Your task to perform on an android device: Add "jbl flip 4" to the cart on bestbuy.com Image 0: 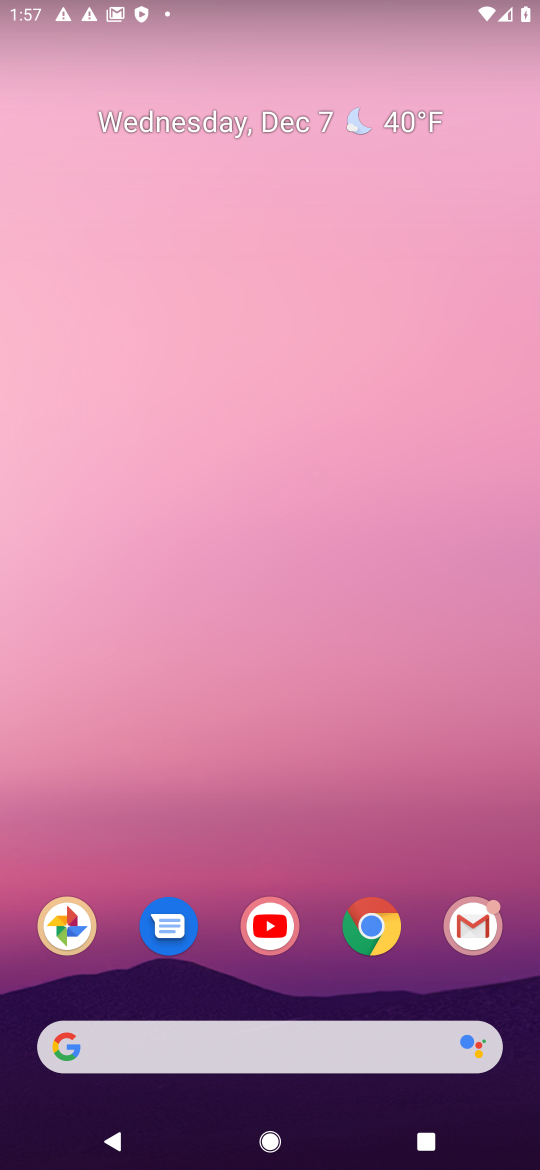
Step 0: drag from (280, 969) to (343, 419)
Your task to perform on an android device: Add "jbl flip 4" to the cart on bestbuy.com Image 1: 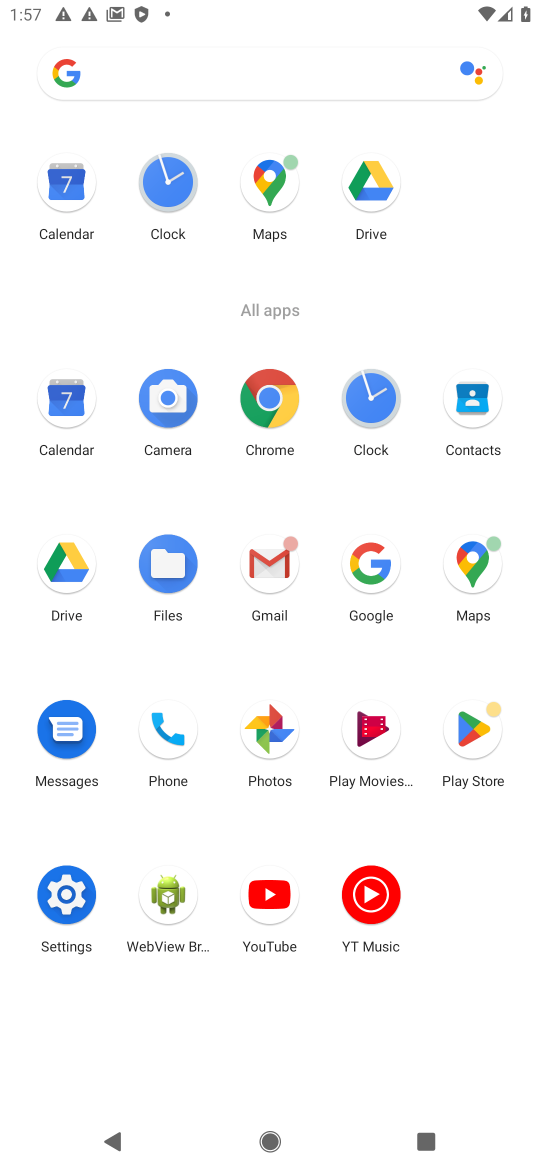
Step 1: click (366, 571)
Your task to perform on an android device: Add "jbl flip 4" to the cart on bestbuy.com Image 2: 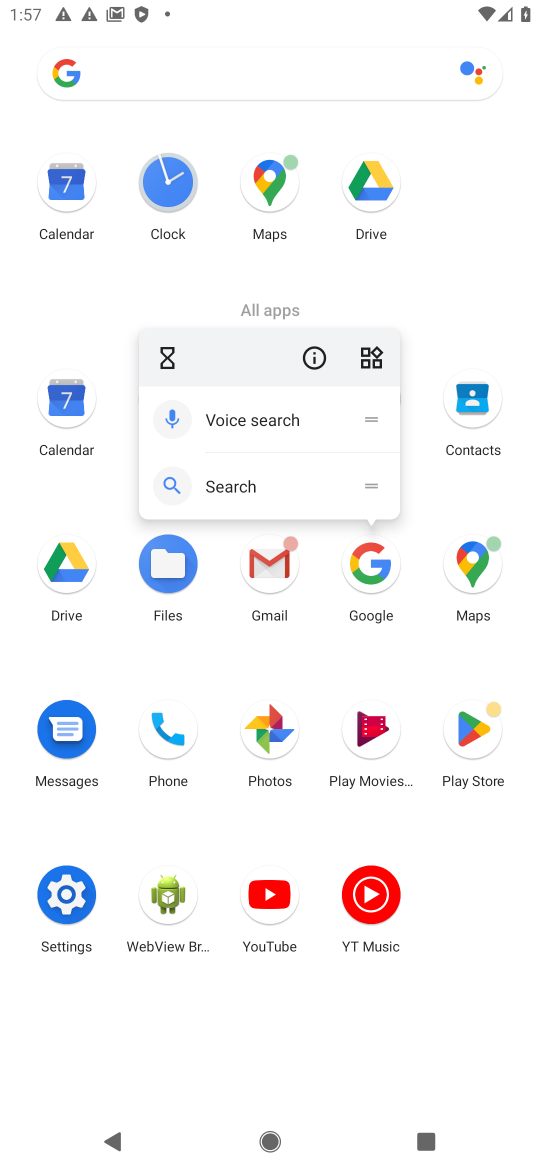
Step 2: click (369, 564)
Your task to perform on an android device: Add "jbl flip 4" to the cart on bestbuy.com Image 3: 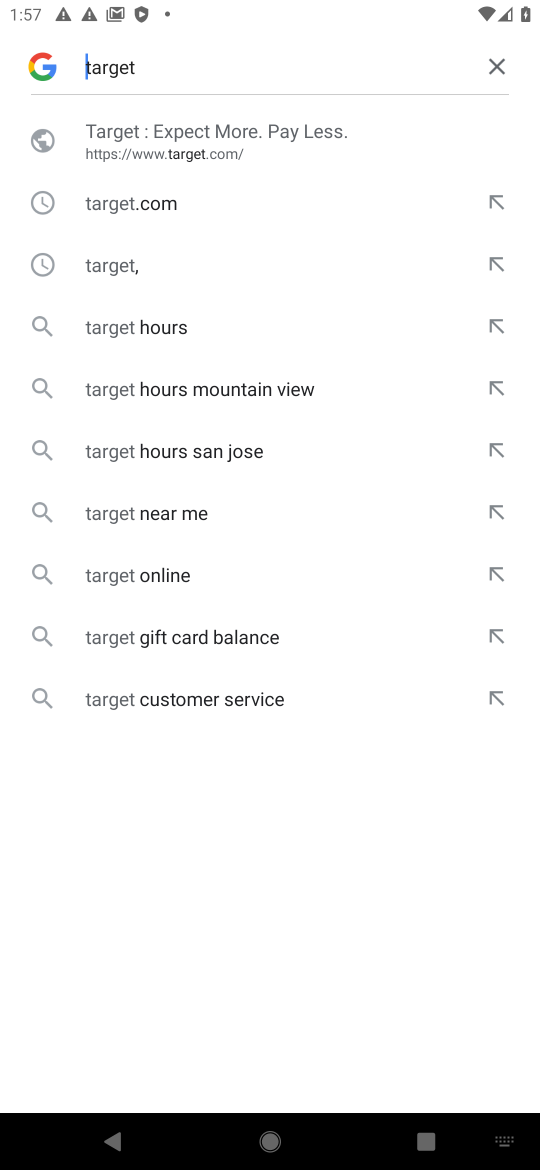
Step 3: click (195, 80)
Your task to perform on an android device: Add "jbl flip 4" to the cart on bestbuy.com Image 4: 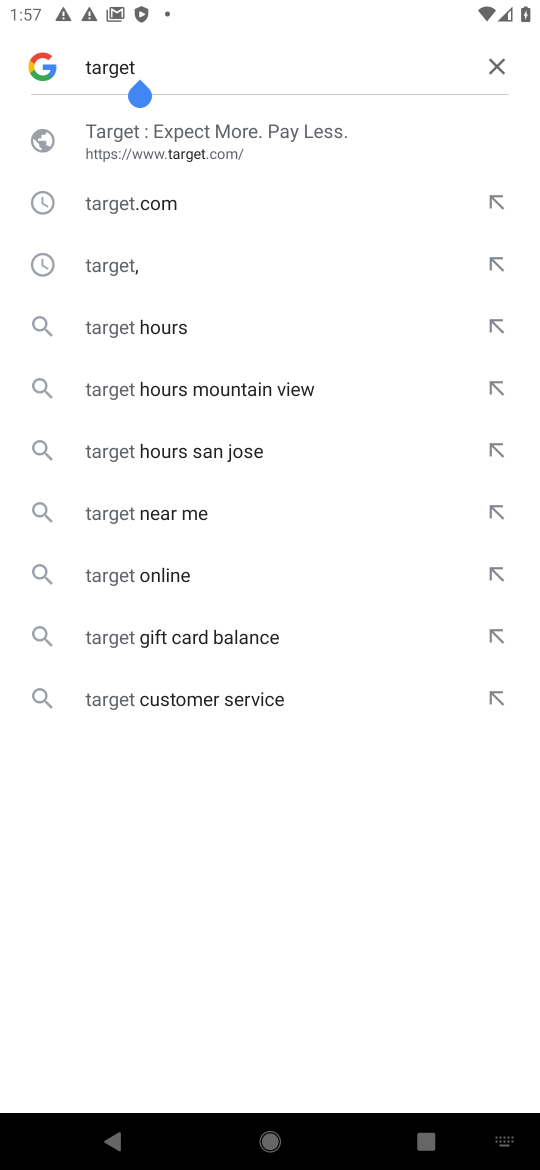
Step 4: click (495, 58)
Your task to perform on an android device: Add "jbl flip 4" to the cart on bestbuy.com Image 5: 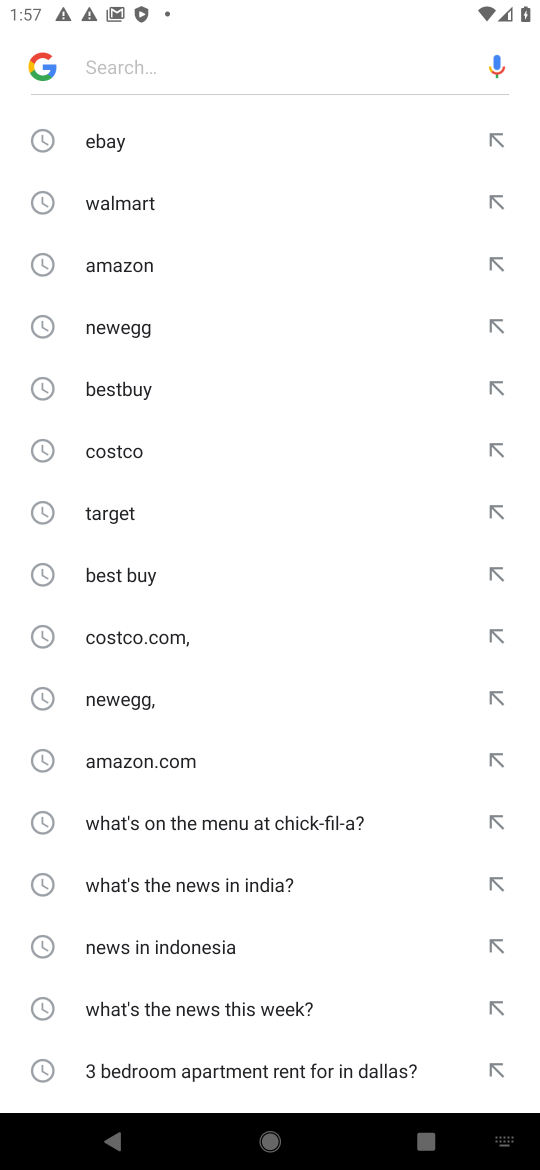
Step 5: click (123, 386)
Your task to perform on an android device: Add "jbl flip 4" to the cart on bestbuy.com Image 6: 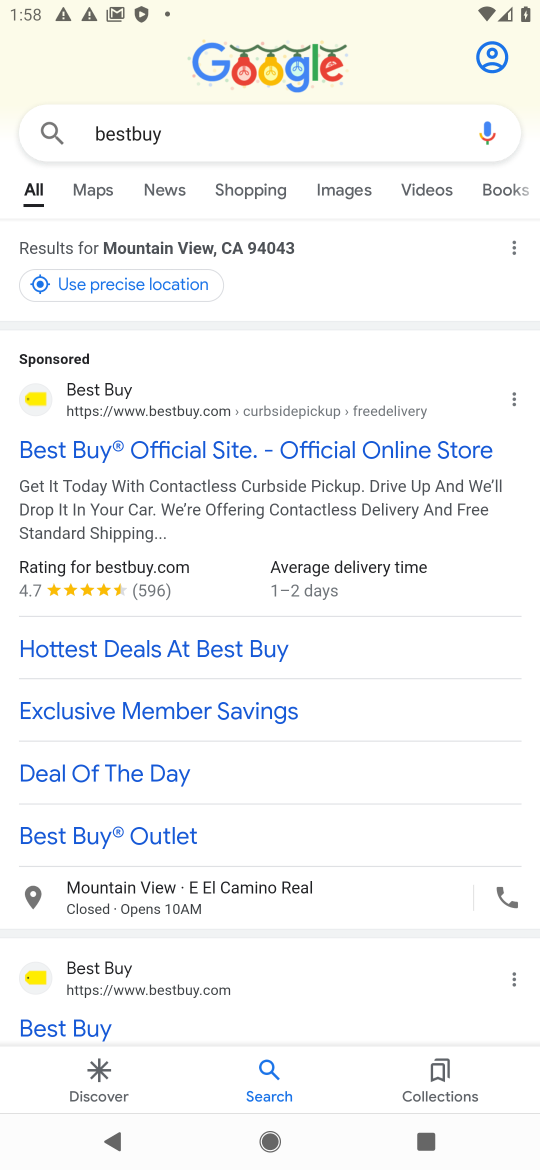
Step 6: click (140, 445)
Your task to perform on an android device: Add "jbl flip 4" to the cart on bestbuy.com Image 7: 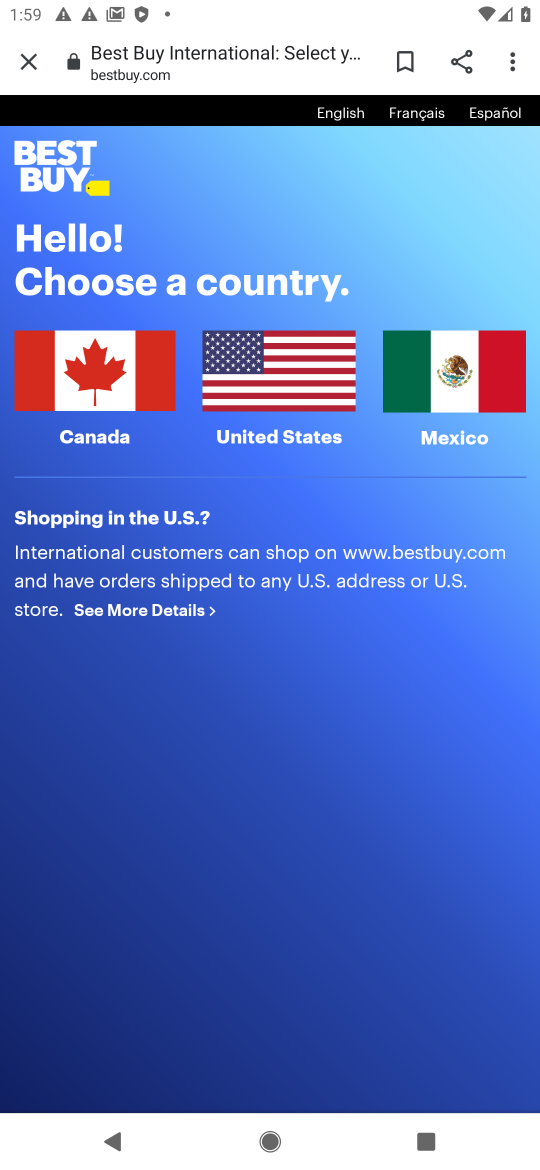
Step 7: click (251, 379)
Your task to perform on an android device: Add "jbl flip 4" to the cart on bestbuy.com Image 8: 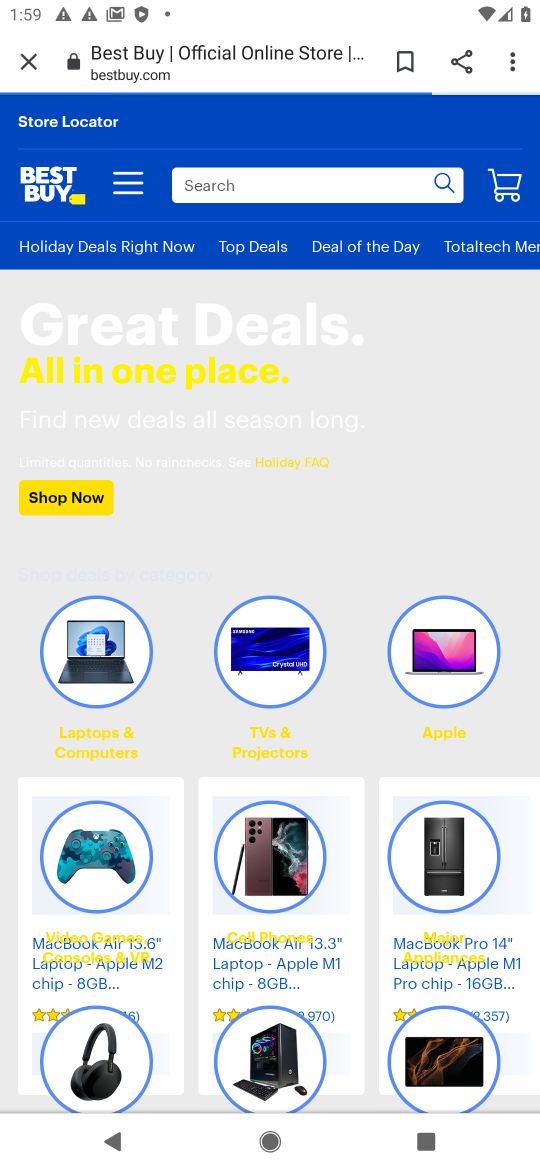
Step 8: click (217, 186)
Your task to perform on an android device: Add "jbl flip 4" to the cart on bestbuy.com Image 9: 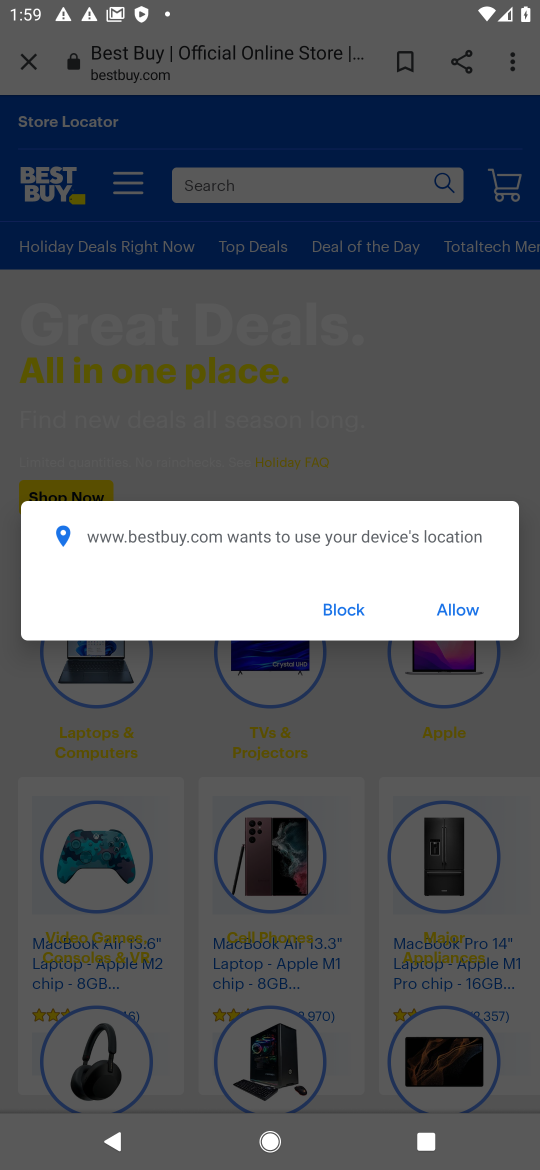
Step 9: click (212, 186)
Your task to perform on an android device: Add "jbl flip 4" to the cart on bestbuy.com Image 10: 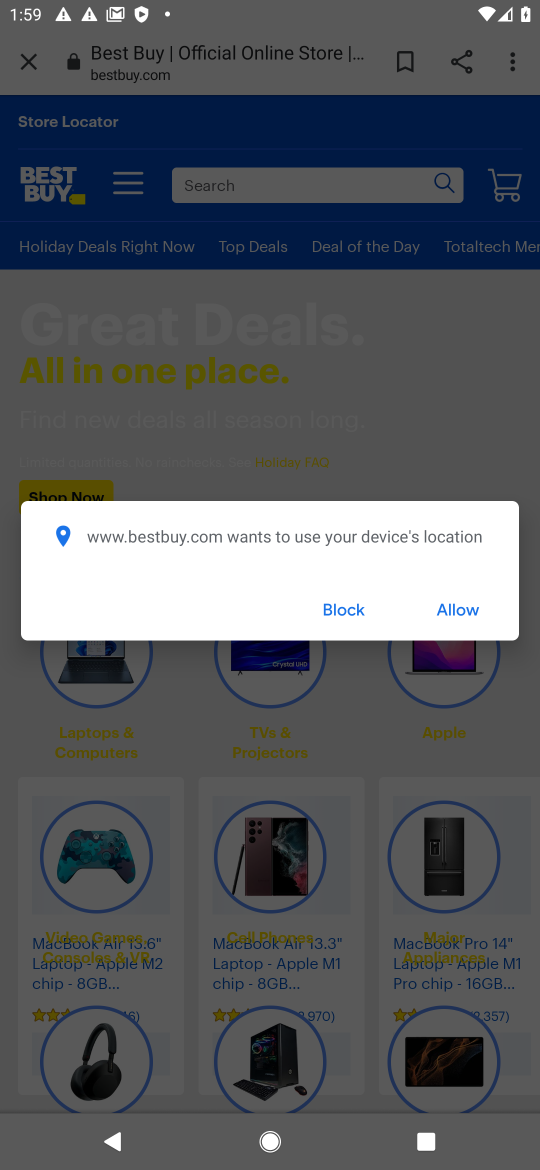
Step 10: click (336, 616)
Your task to perform on an android device: Add "jbl flip 4" to the cart on bestbuy.com Image 11: 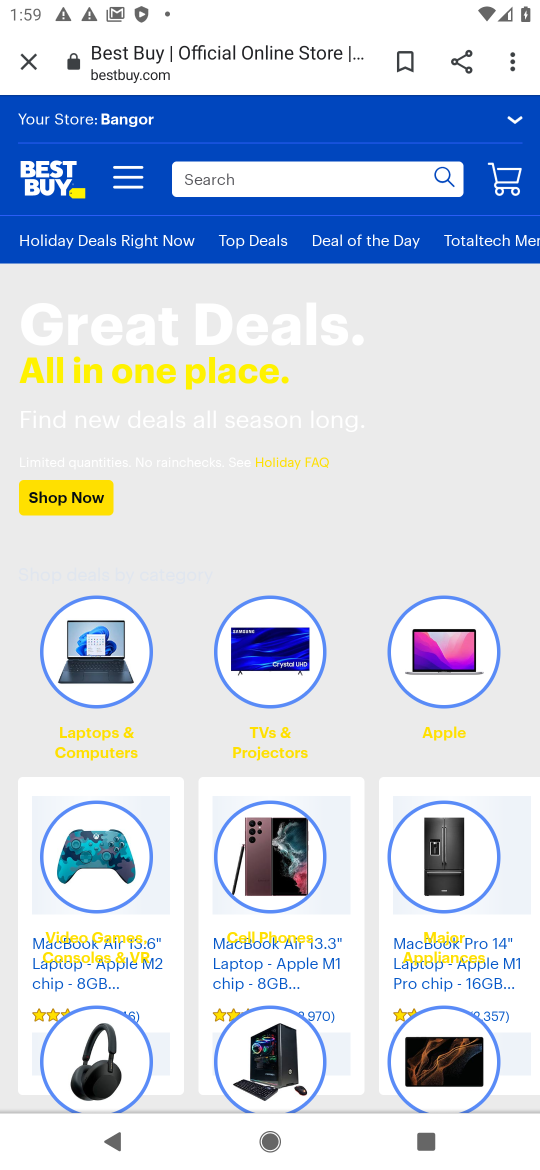
Step 11: click (245, 199)
Your task to perform on an android device: Add "jbl flip 4" to the cart on bestbuy.com Image 12: 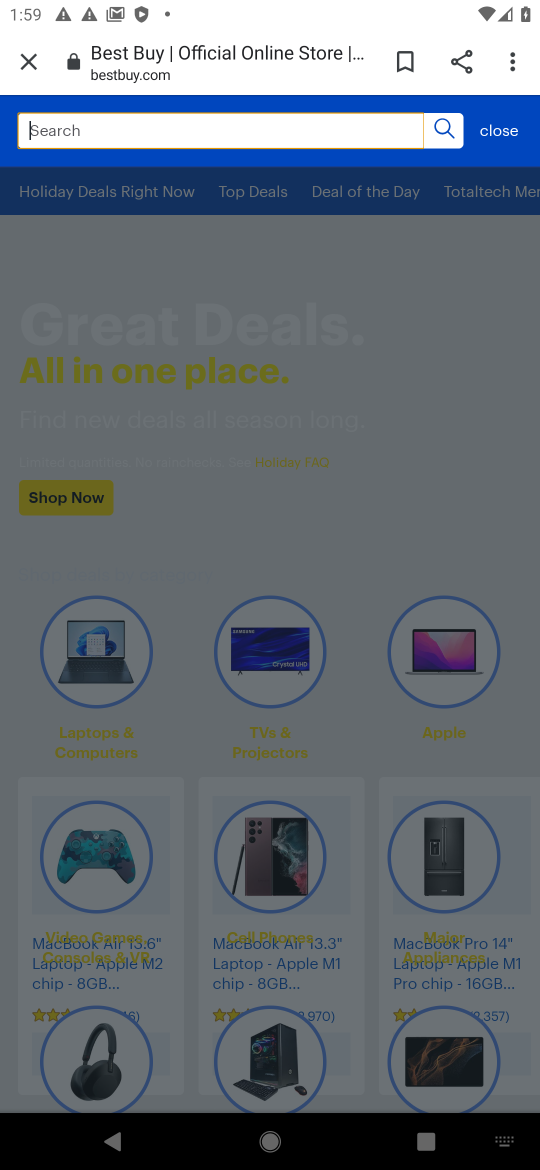
Step 12: type "jbl flip 4"
Your task to perform on an android device: Add "jbl flip 4" to the cart on bestbuy.com Image 13: 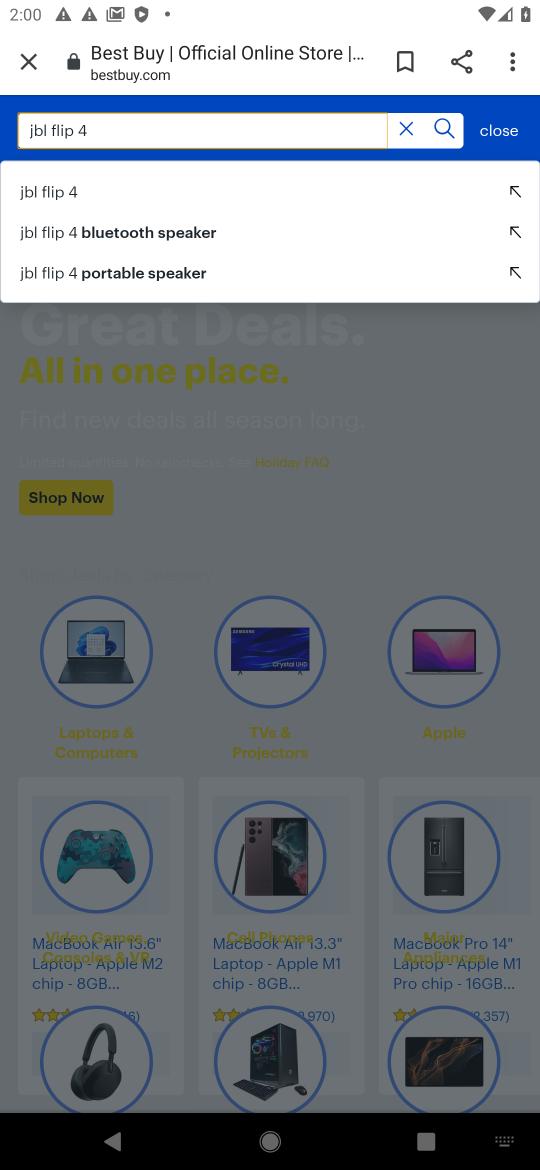
Step 13: click (37, 200)
Your task to perform on an android device: Add "jbl flip 4" to the cart on bestbuy.com Image 14: 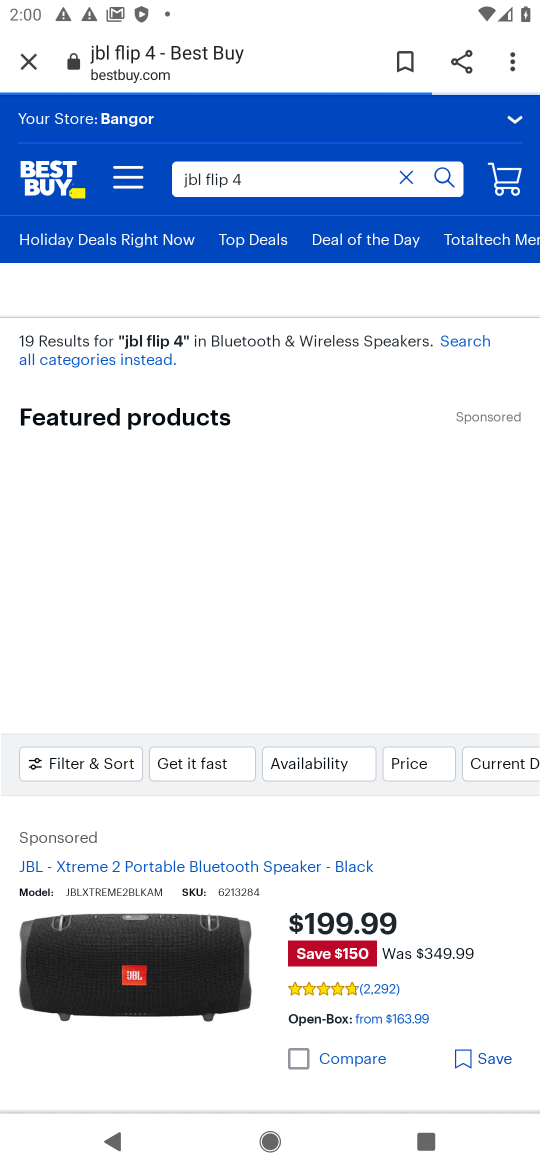
Step 14: drag from (76, 1031) to (154, 451)
Your task to perform on an android device: Add "jbl flip 4" to the cart on bestbuy.com Image 15: 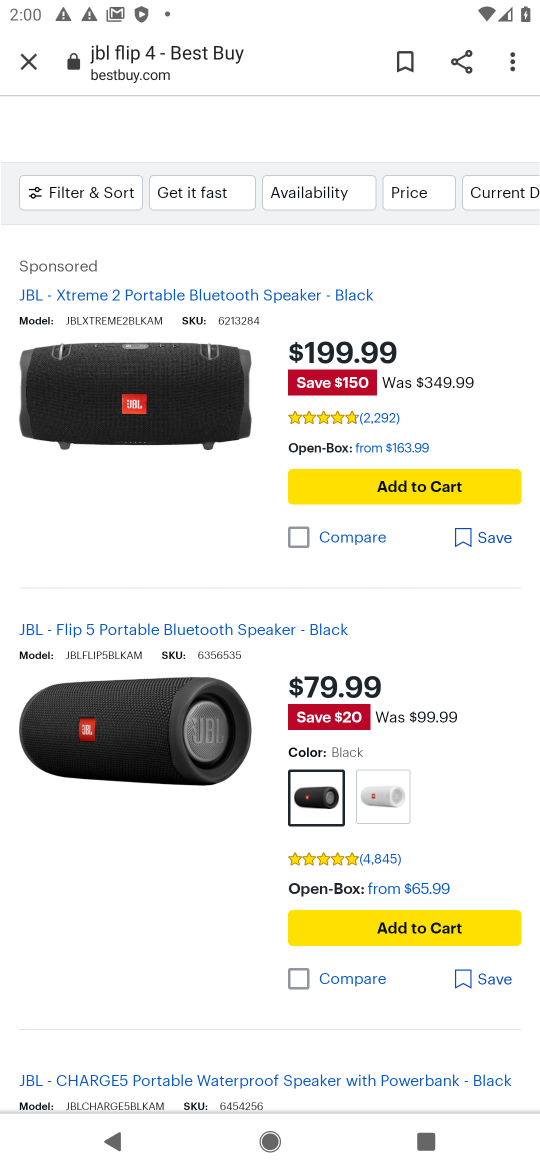
Step 15: click (140, 393)
Your task to perform on an android device: Add "jbl flip 4" to the cart on bestbuy.com Image 16: 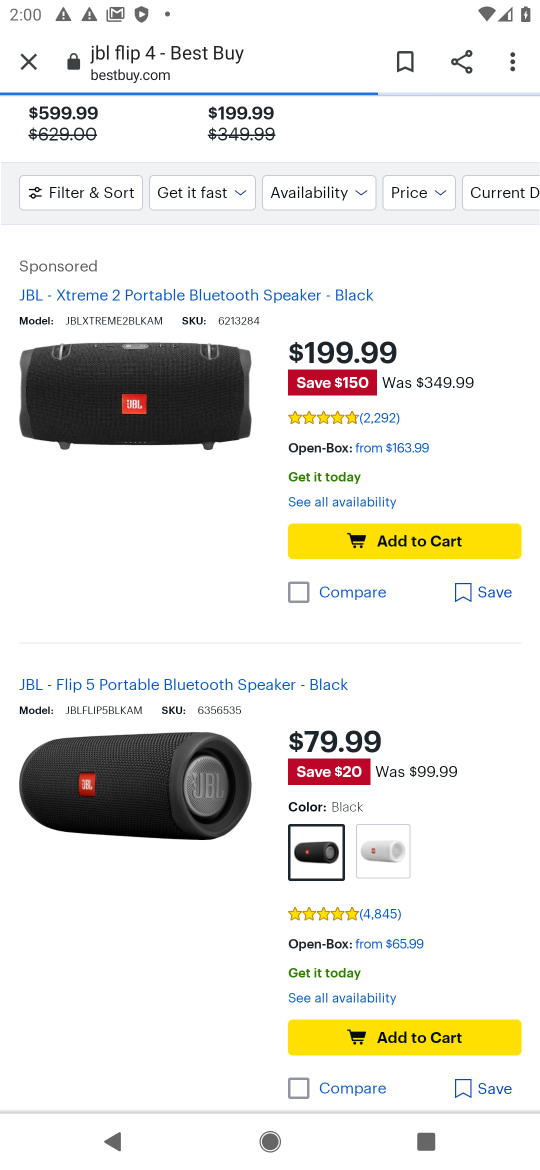
Step 16: click (421, 544)
Your task to perform on an android device: Add "jbl flip 4" to the cart on bestbuy.com Image 17: 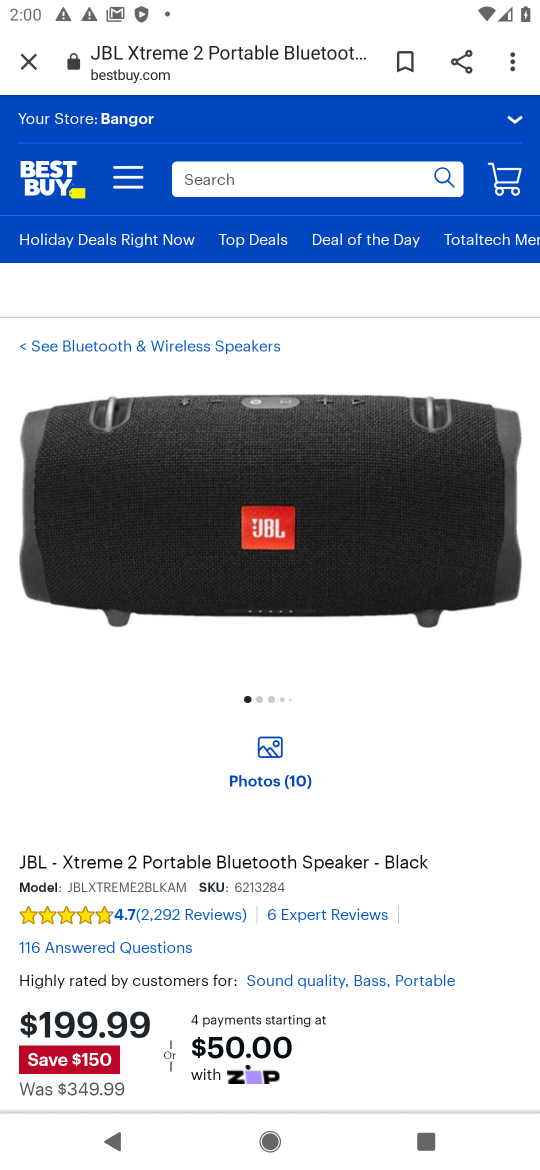
Step 17: drag from (238, 771) to (252, 357)
Your task to perform on an android device: Add "jbl flip 4" to the cart on bestbuy.com Image 18: 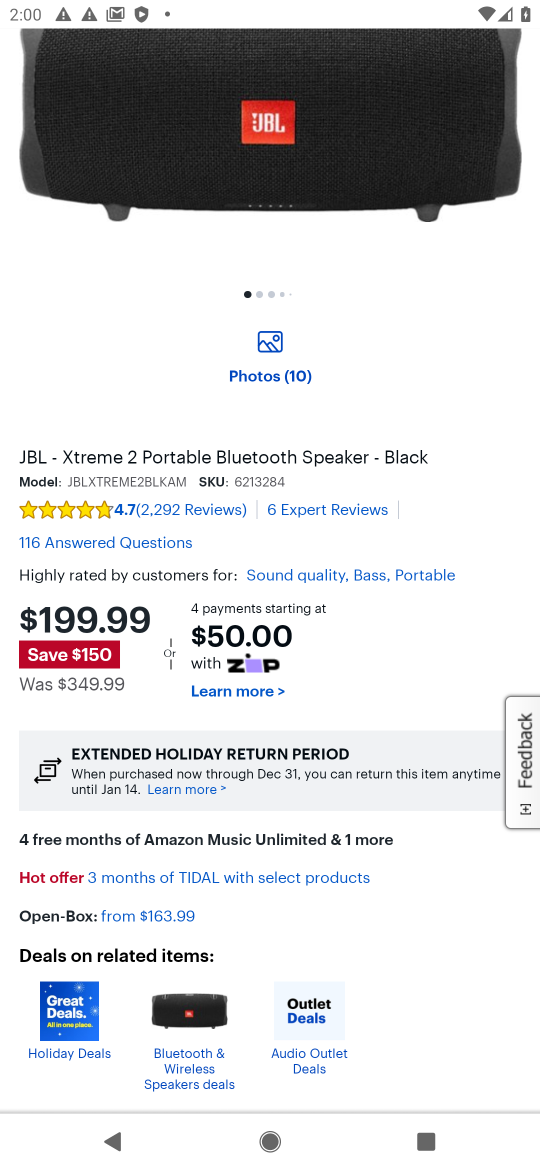
Step 18: drag from (206, 877) to (227, 438)
Your task to perform on an android device: Add "jbl flip 4" to the cart on bestbuy.com Image 19: 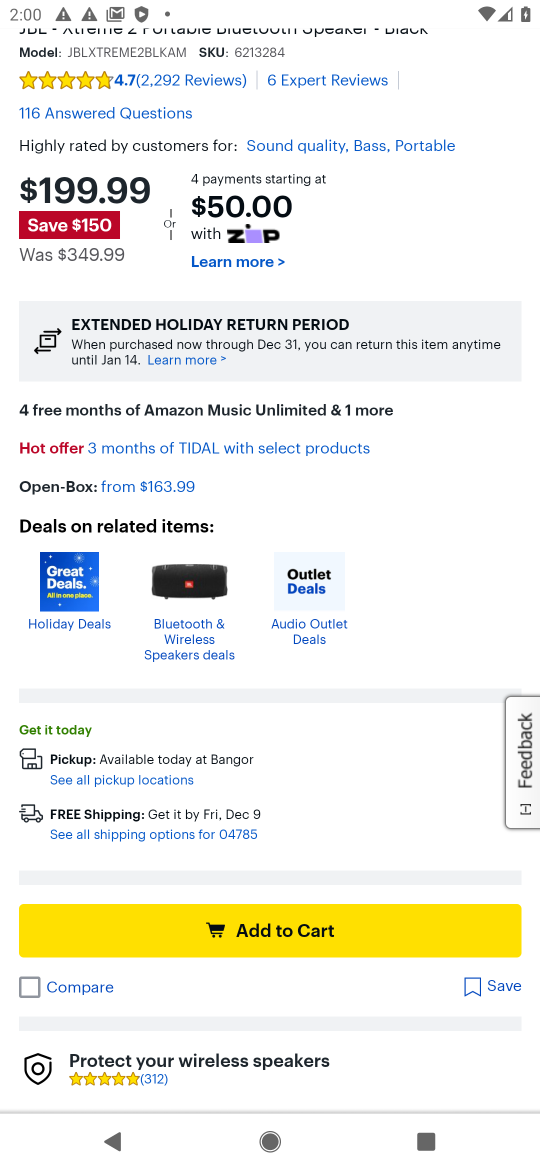
Step 19: click (231, 929)
Your task to perform on an android device: Add "jbl flip 4" to the cart on bestbuy.com Image 20: 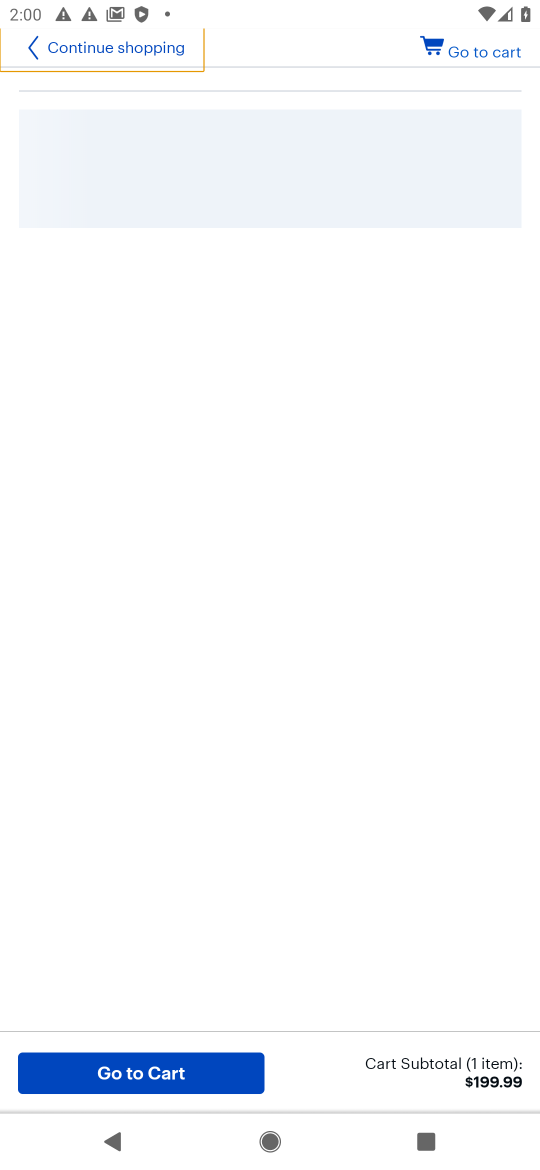
Step 20: task complete